Your task to perform on an android device: check out phone information Image 0: 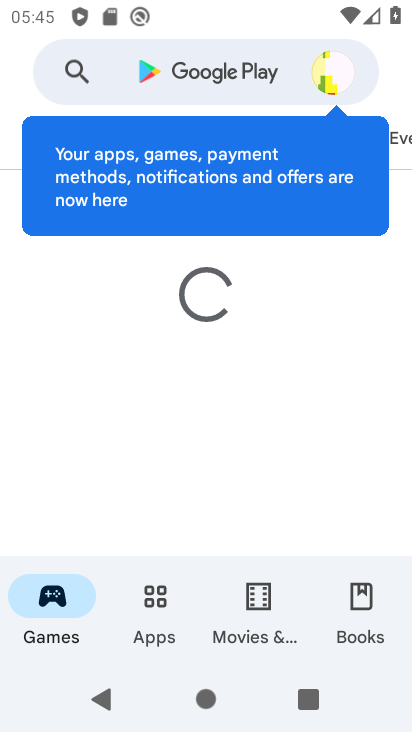
Step 0: press back button
Your task to perform on an android device: check out phone information Image 1: 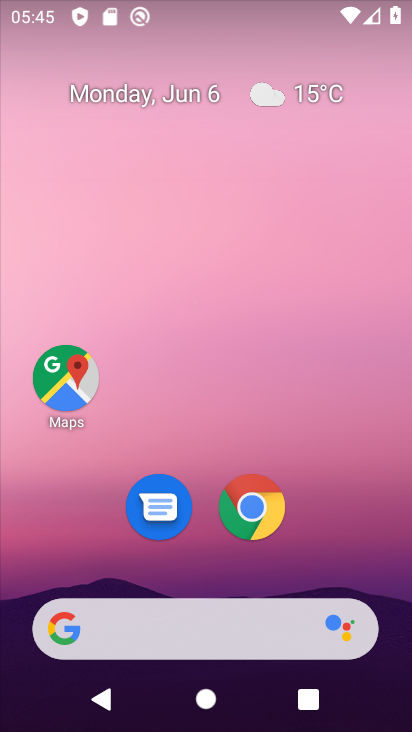
Step 1: drag from (184, 566) to (219, 1)
Your task to perform on an android device: check out phone information Image 2: 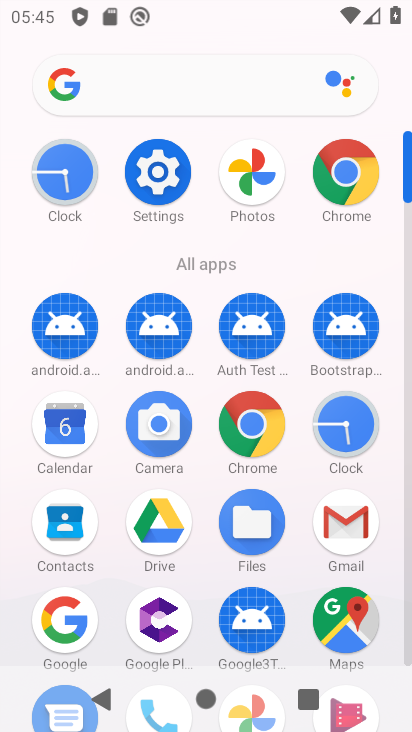
Step 2: click (146, 183)
Your task to perform on an android device: check out phone information Image 3: 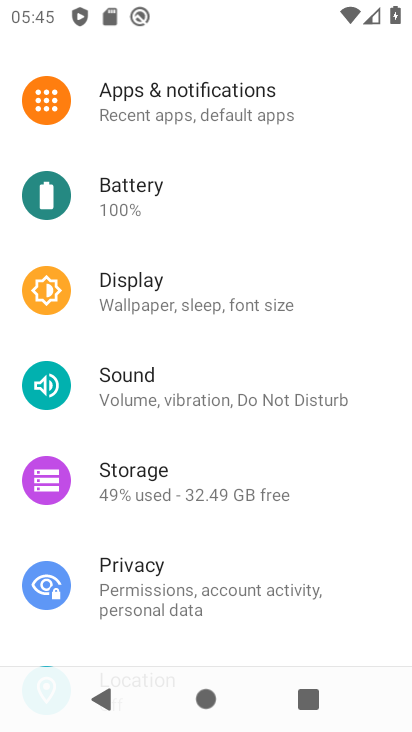
Step 3: drag from (206, 577) to (217, 21)
Your task to perform on an android device: check out phone information Image 4: 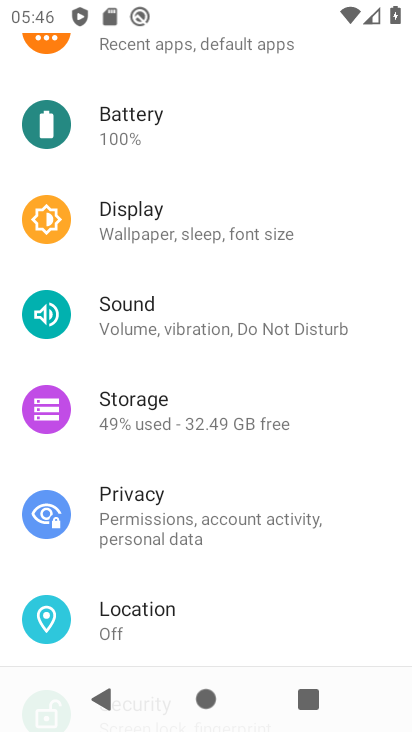
Step 4: drag from (283, 583) to (74, 1)
Your task to perform on an android device: check out phone information Image 5: 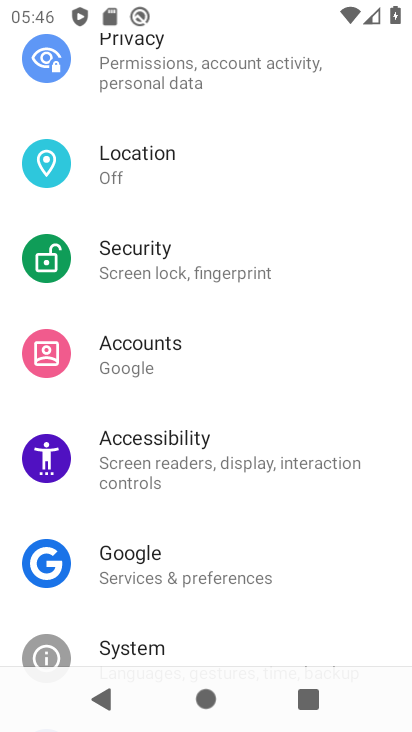
Step 5: drag from (158, 569) to (149, 4)
Your task to perform on an android device: check out phone information Image 6: 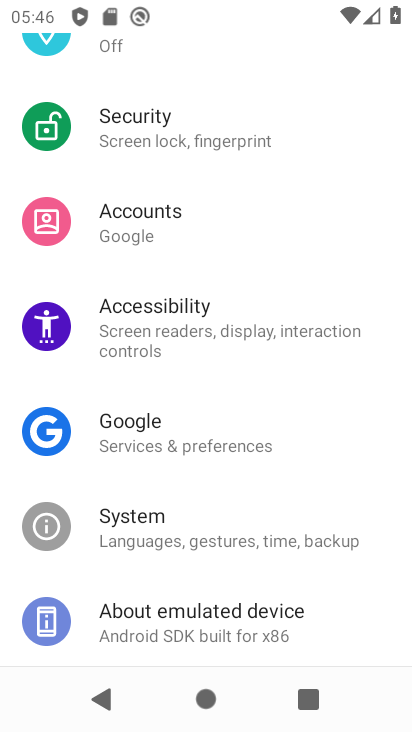
Step 6: click (179, 624)
Your task to perform on an android device: check out phone information Image 7: 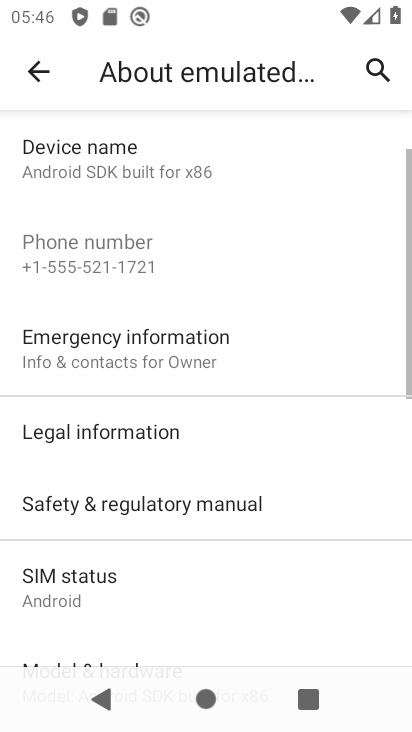
Step 7: task complete